Your task to perform on an android device: Open accessibility settings Image 0: 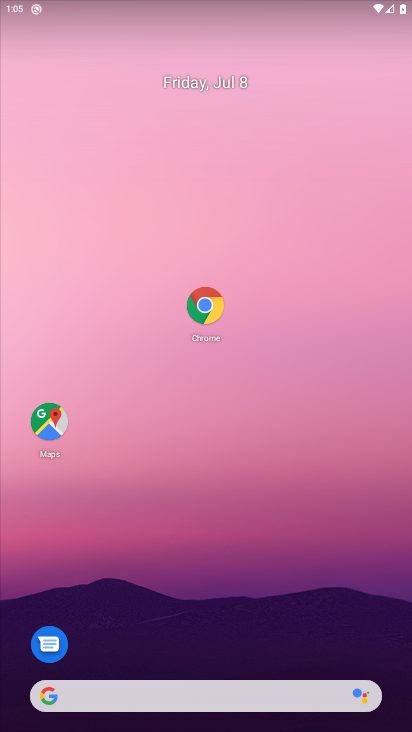
Step 0: drag from (181, 668) to (173, 292)
Your task to perform on an android device: Open accessibility settings Image 1: 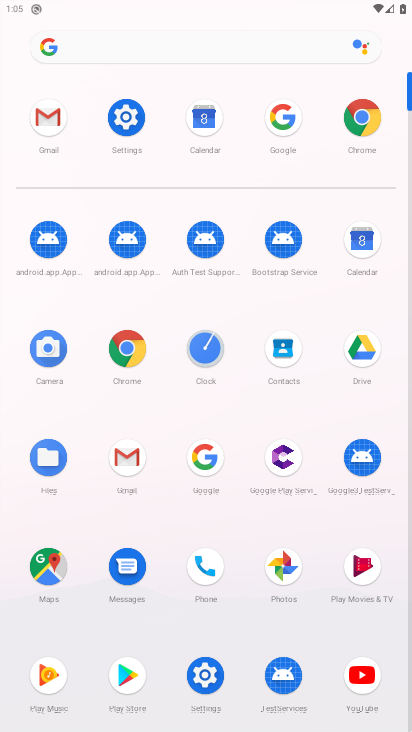
Step 1: click (121, 117)
Your task to perform on an android device: Open accessibility settings Image 2: 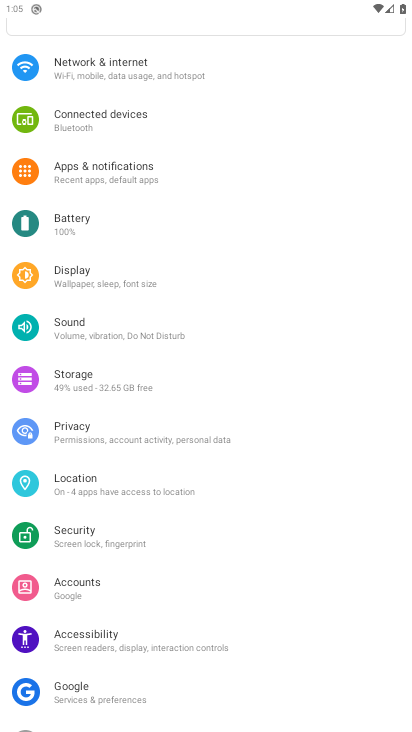
Step 2: click (100, 639)
Your task to perform on an android device: Open accessibility settings Image 3: 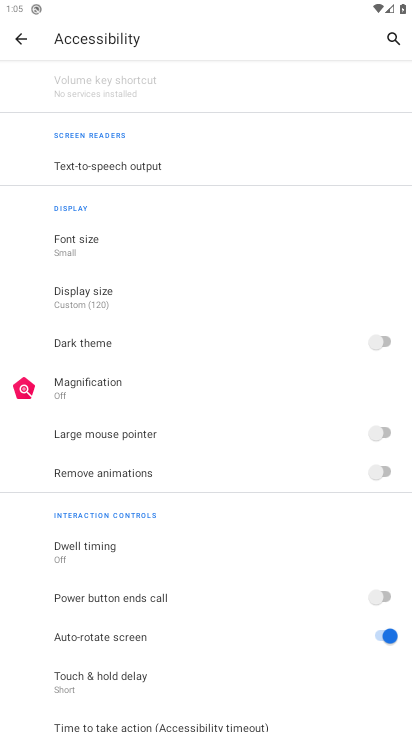
Step 3: task complete